Your task to perform on an android device: open app "Calculator" Image 0: 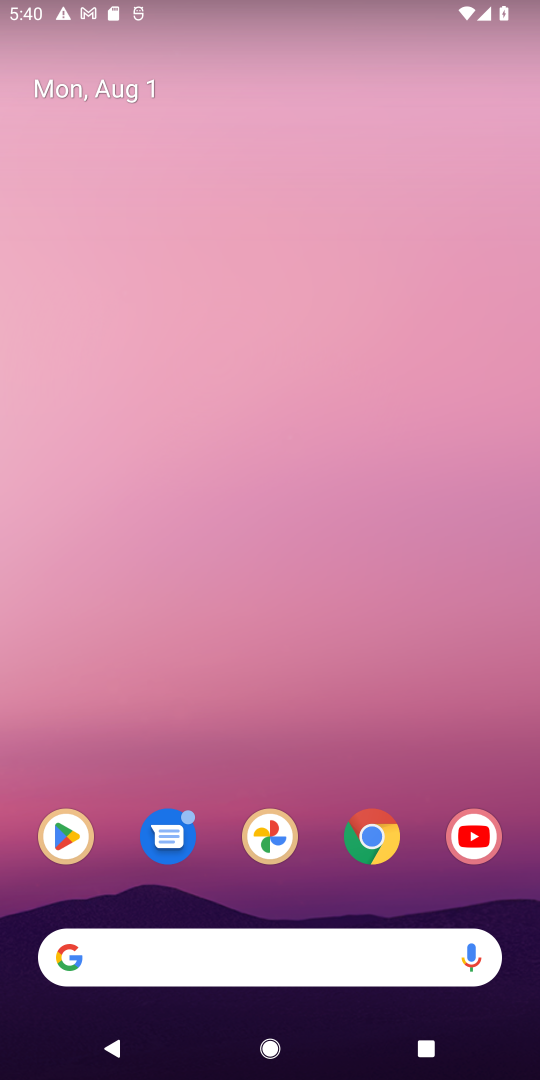
Step 0: click (72, 833)
Your task to perform on an android device: open app "Calculator" Image 1: 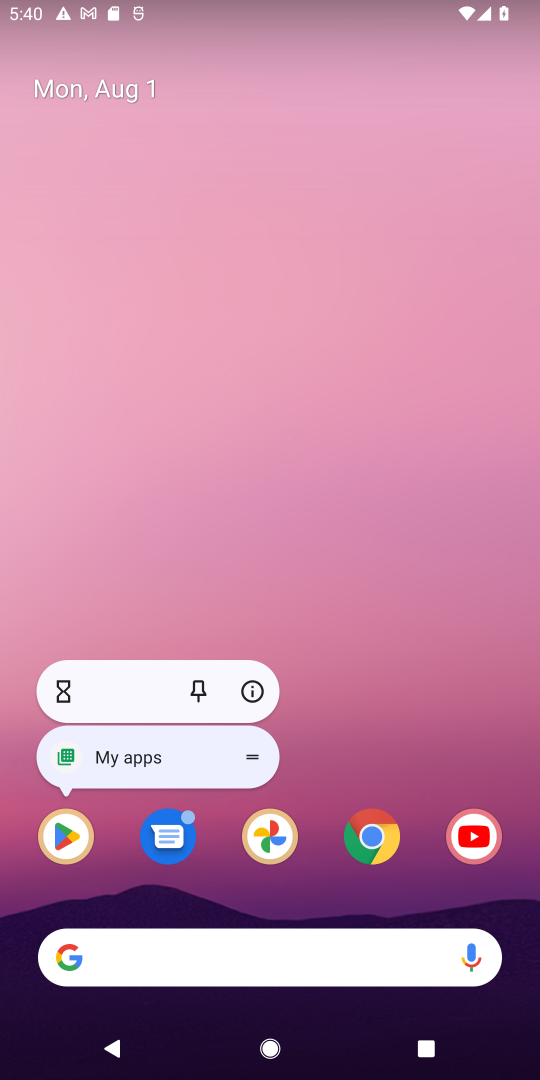
Step 1: click (59, 834)
Your task to perform on an android device: open app "Calculator" Image 2: 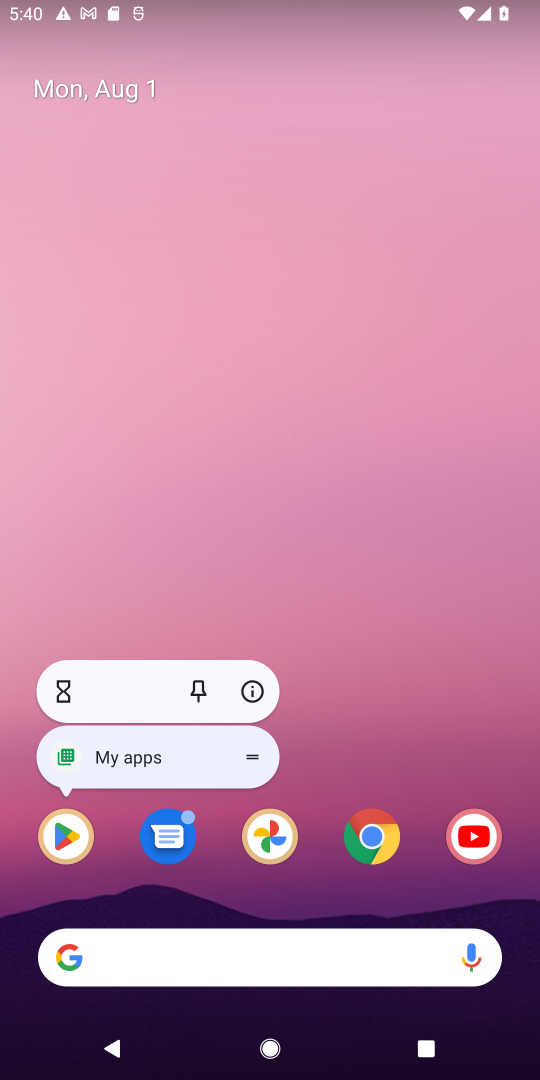
Step 2: click (53, 849)
Your task to perform on an android device: open app "Calculator" Image 3: 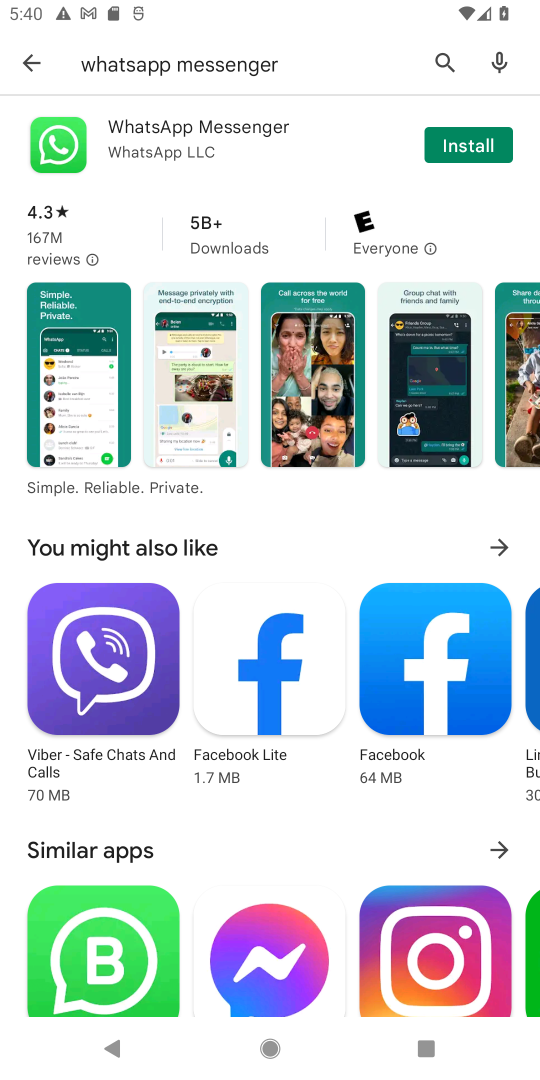
Step 3: click (444, 54)
Your task to perform on an android device: open app "Calculator" Image 4: 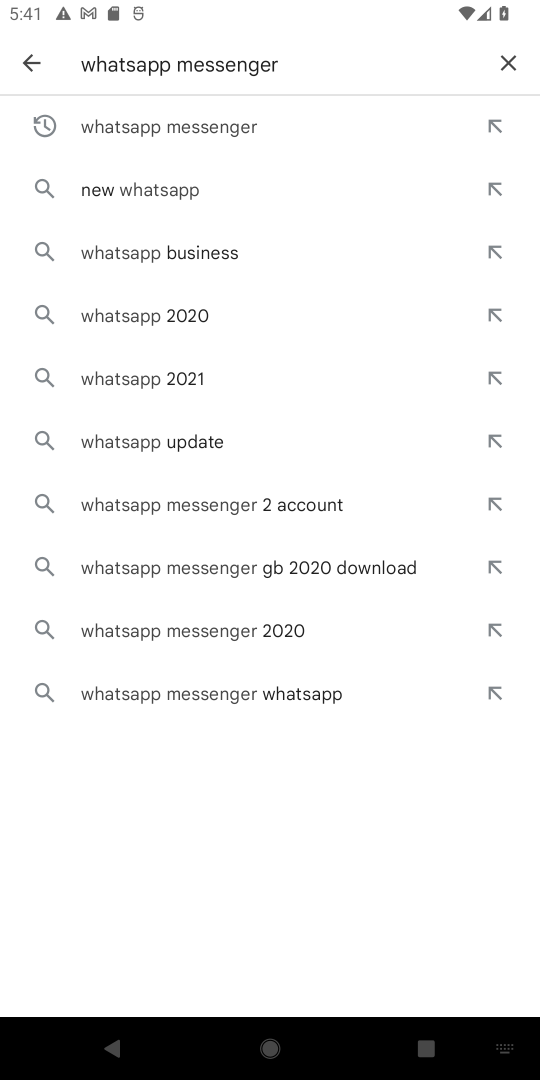
Step 4: click (502, 56)
Your task to perform on an android device: open app "Calculator" Image 5: 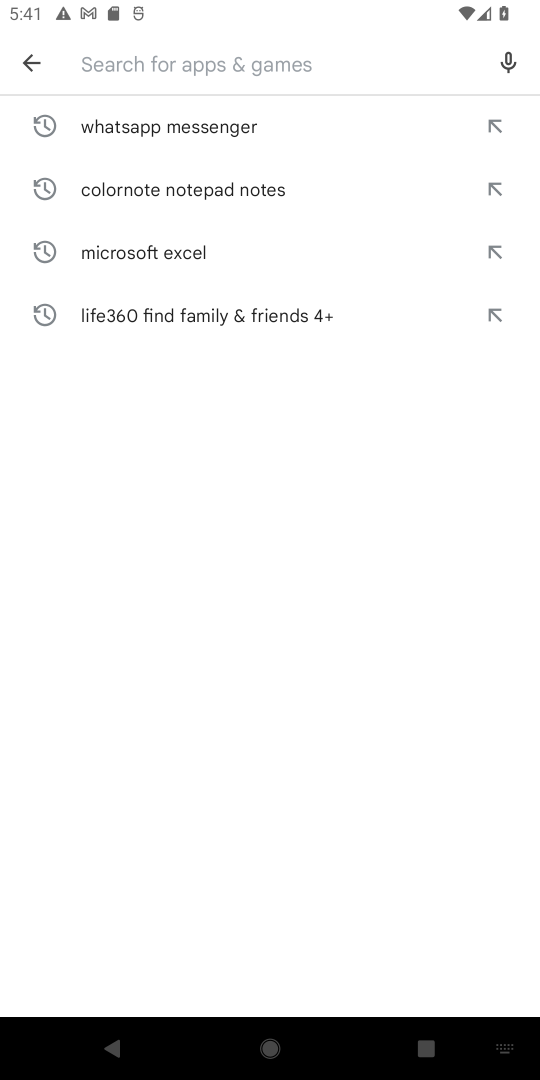
Step 5: type "Calculator"
Your task to perform on an android device: open app "Calculator" Image 6: 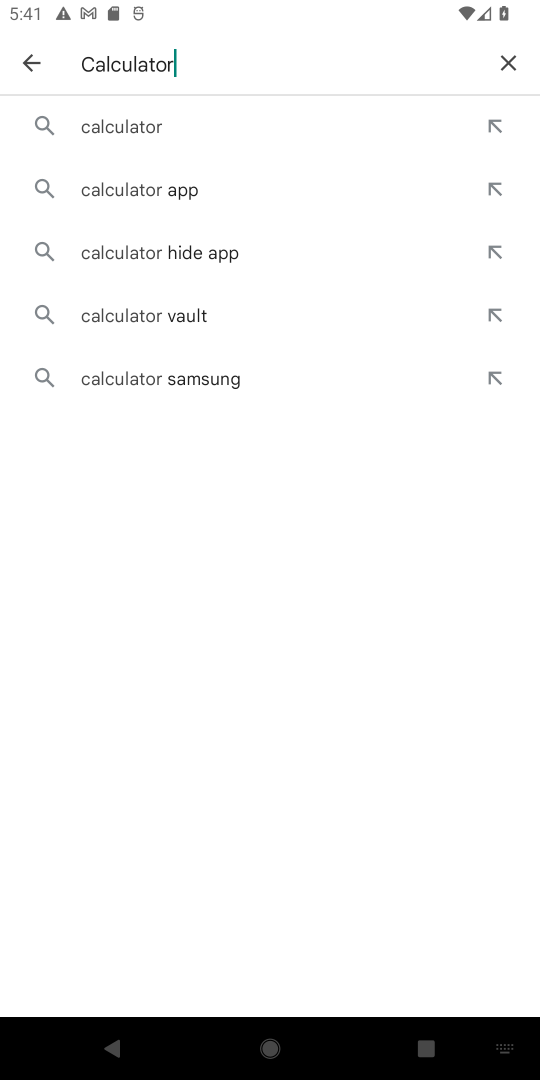
Step 6: click (129, 125)
Your task to perform on an android device: open app "Calculator" Image 7: 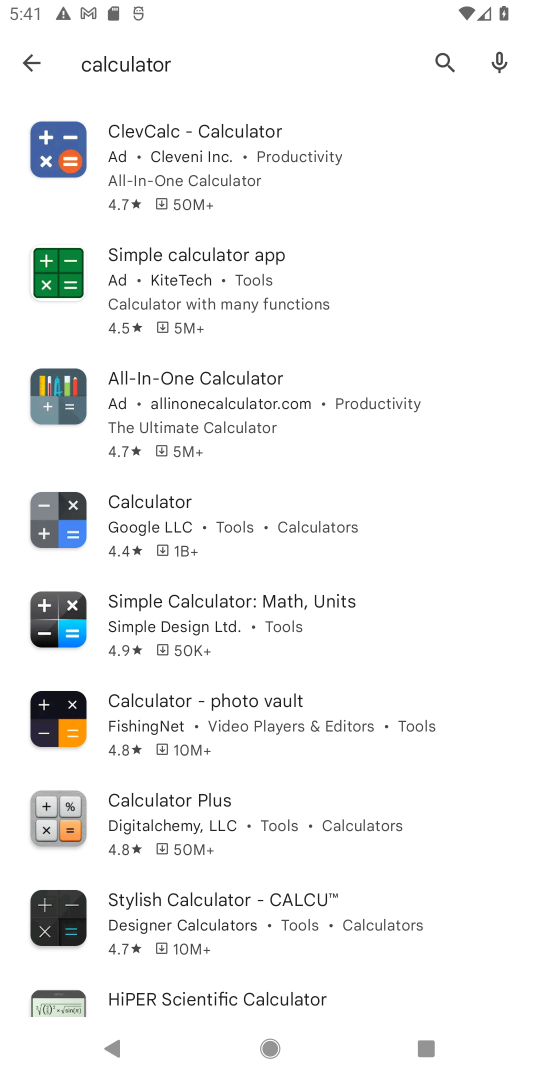
Step 7: click (135, 513)
Your task to perform on an android device: open app "Calculator" Image 8: 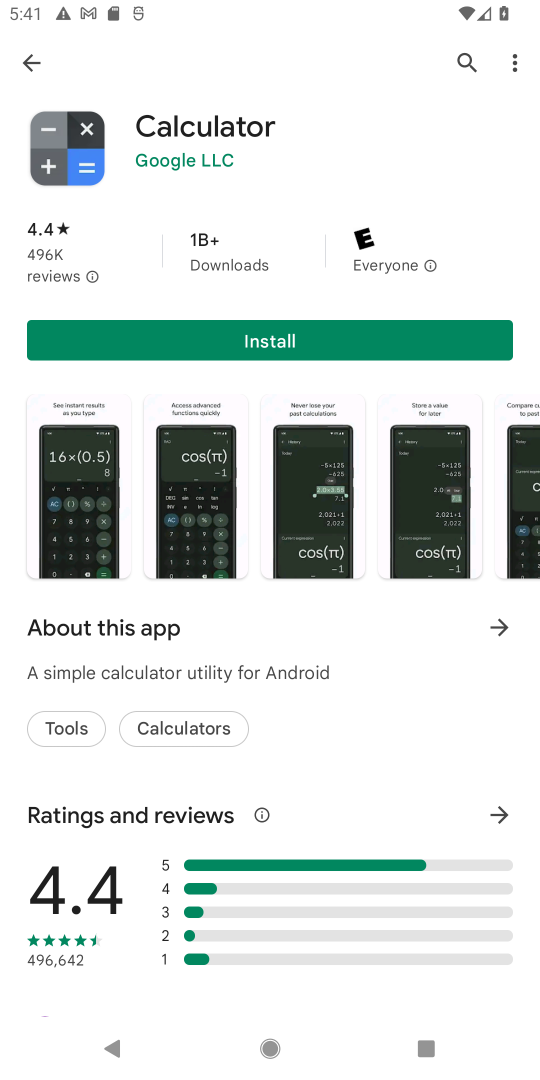
Step 8: task complete